Your task to perform on an android device: change your default location settings in chrome Image 0: 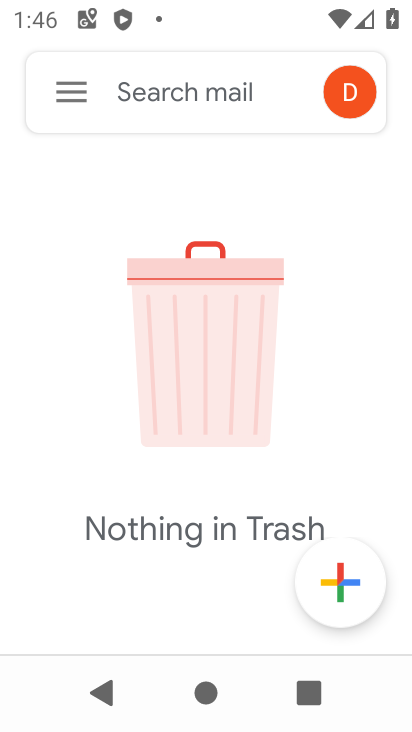
Step 0: press home button
Your task to perform on an android device: change your default location settings in chrome Image 1: 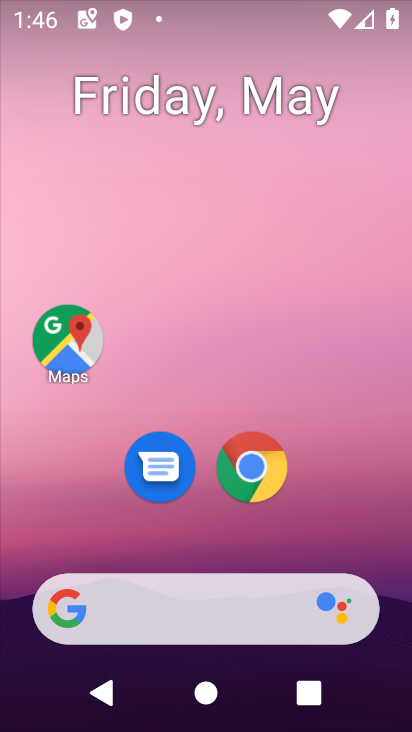
Step 1: drag from (329, 492) to (295, 24)
Your task to perform on an android device: change your default location settings in chrome Image 2: 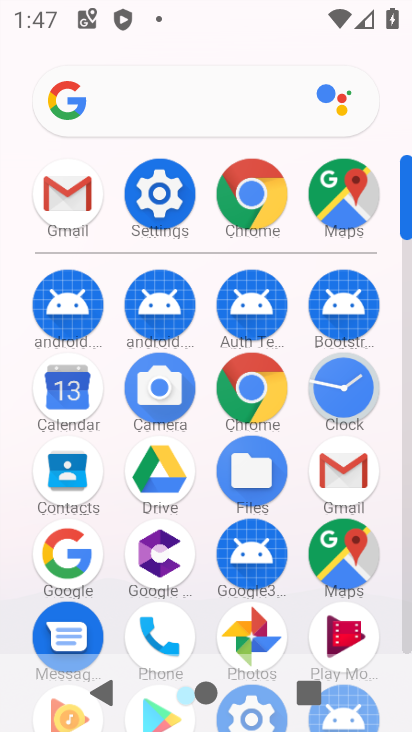
Step 2: click (249, 190)
Your task to perform on an android device: change your default location settings in chrome Image 3: 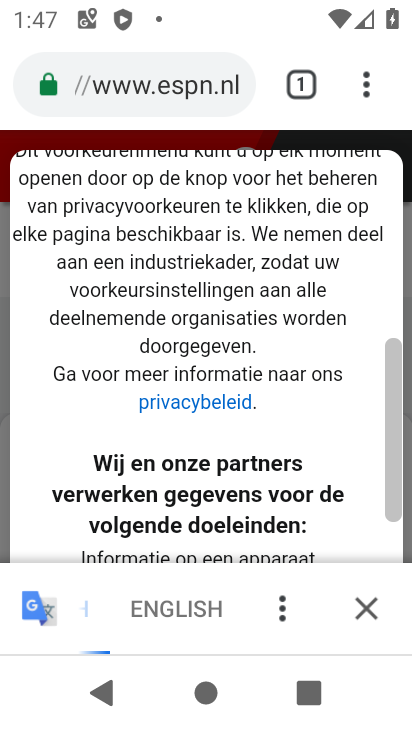
Step 3: drag from (365, 84) to (154, 519)
Your task to perform on an android device: change your default location settings in chrome Image 4: 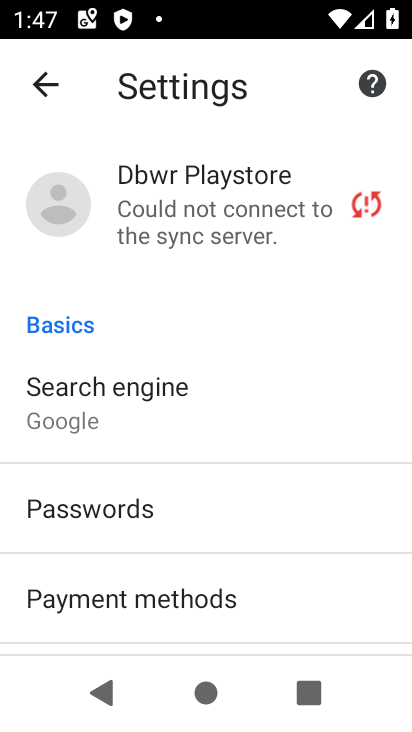
Step 4: drag from (203, 618) to (139, 304)
Your task to perform on an android device: change your default location settings in chrome Image 5: 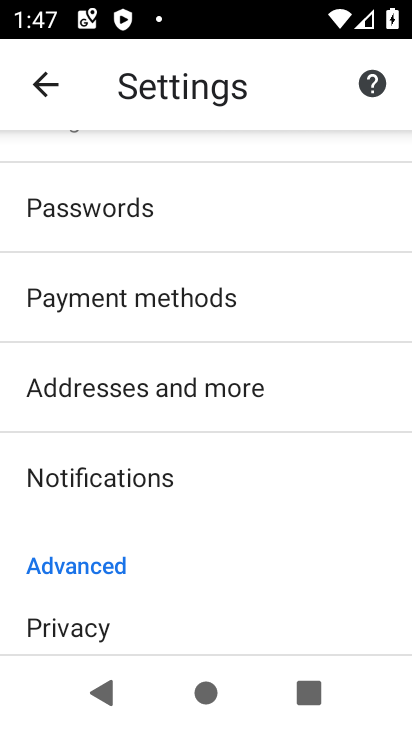
Step 5: drag from (224, 534) to (245, 188)
Your task to perform on an android device: change your default location settings in chrome Image 6: 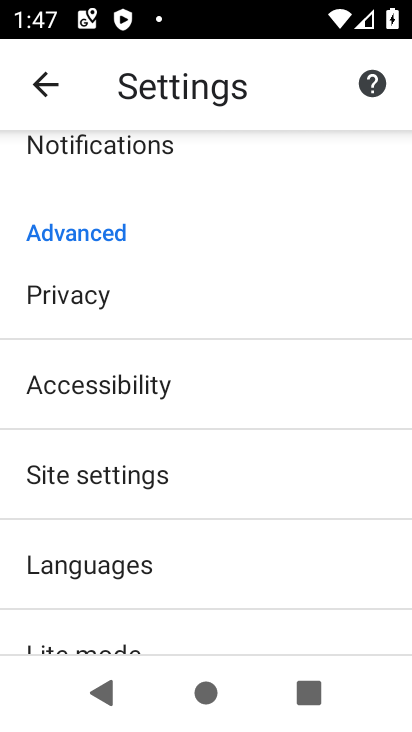
Step 6: drag from (189, 542) to (217, 270)
Your task to perform on an android device: change your default location settings in chrome Image 7: 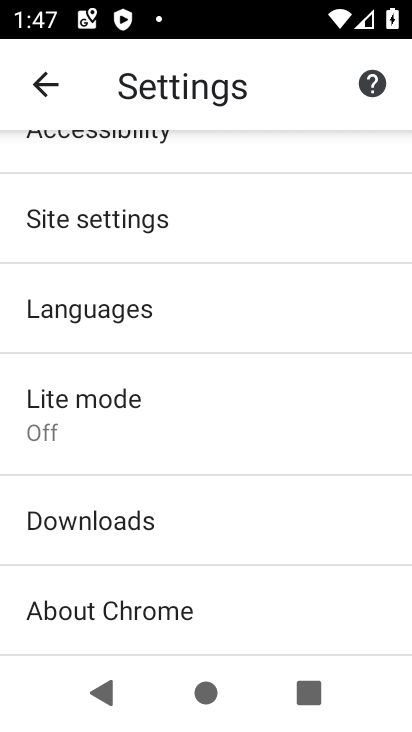
Step 7: drag from (176, 543) to (224, 201)
Your task to perform on an android device: change your default location settings in chrome Image 8: 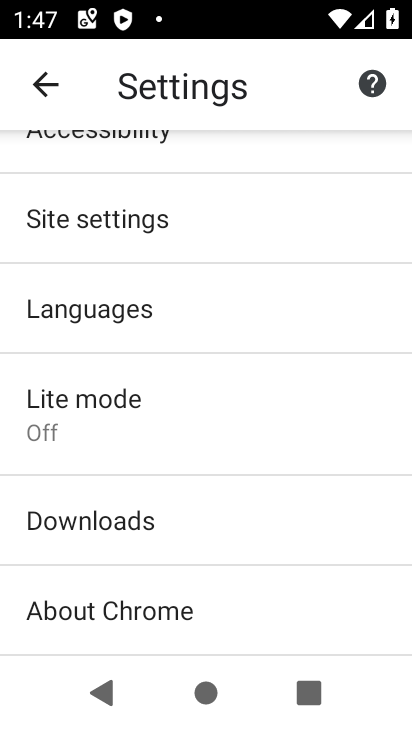
Step 8: drag from (184, 584) to (194, 228)
Your task to perform on an android device: change your default location settings in chrome Image 9: 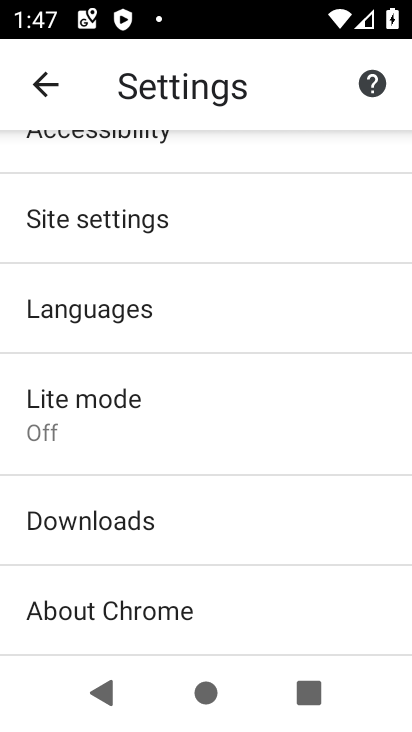
Step 9: drag from (235, 544) to (256, 257)
Your task to perform on an android device: change your default location settings in chrome Image 10: 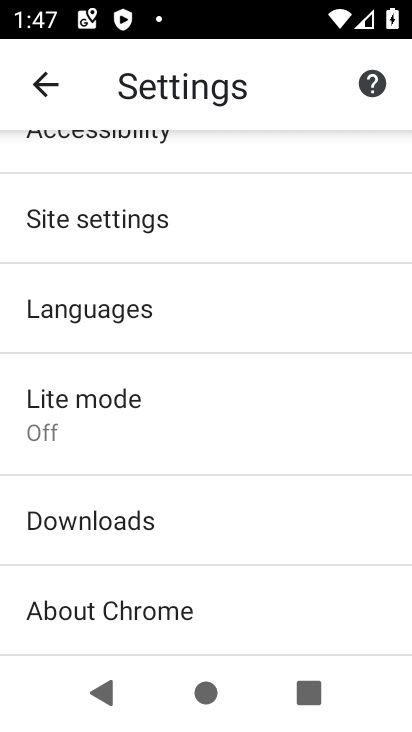
Step 10: drag from (204, 571) to (263, 195)
Your task to perform on an android device: change your default location settings in chrome Image 11: 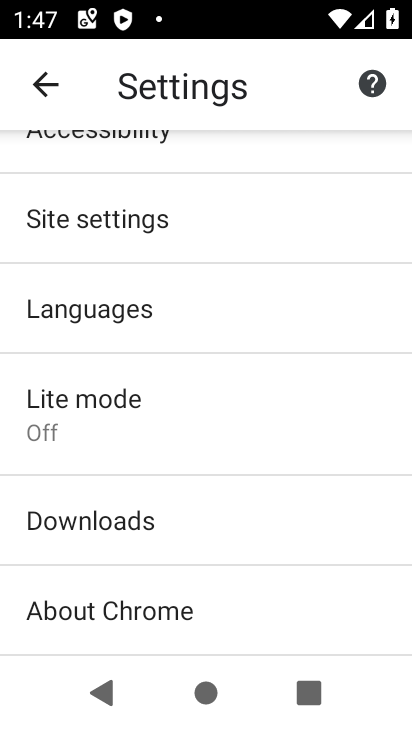
Step 11: drag from (266, 249) to (278, 575)
Your task to perform on an android device: change your default location settings in chrome Image 12: 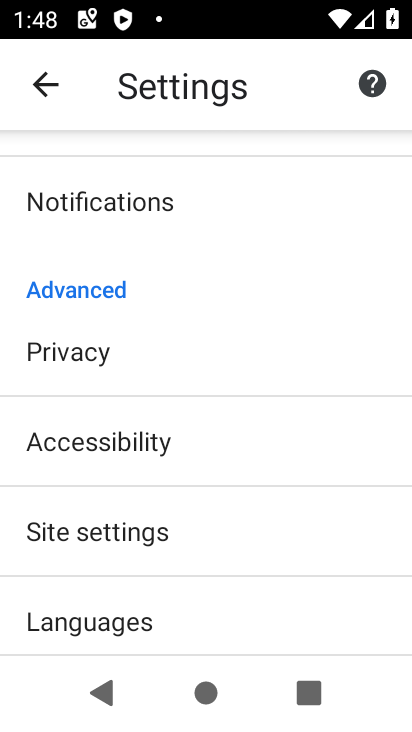
Step 12: drag from (286, 322) to (314, 674)
Your task to perform on an android device: change your default location settings in chrome Image 13: 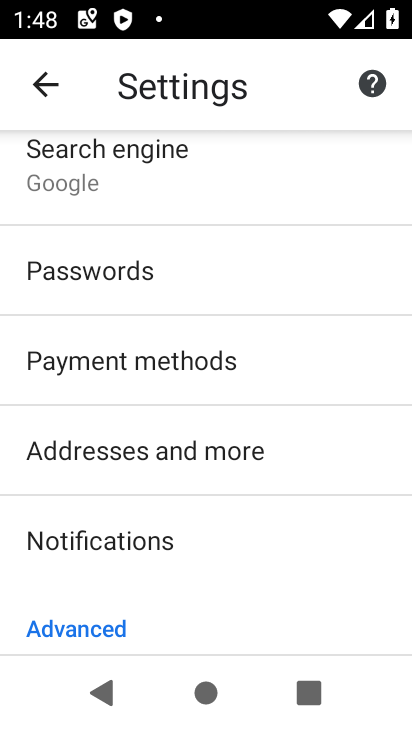
Step 13: drag from (222, 569) to (236, 245)
Your task to perform on an android device: change your default location settings in chrome Image 14: 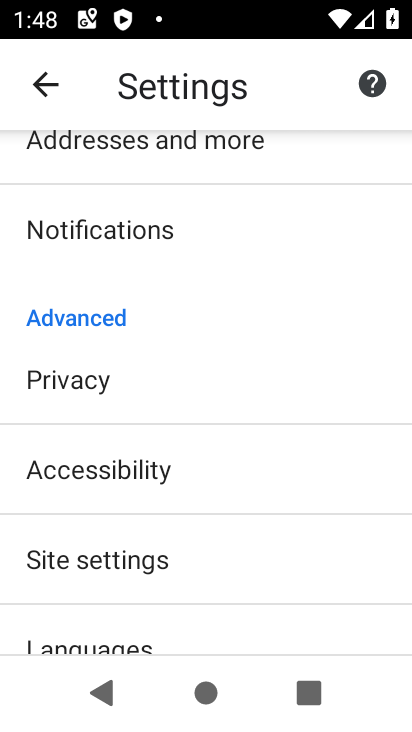
Step 14: click (143, 554)
Your task to perform on an android device: change your default location settings in chrome Image 15: 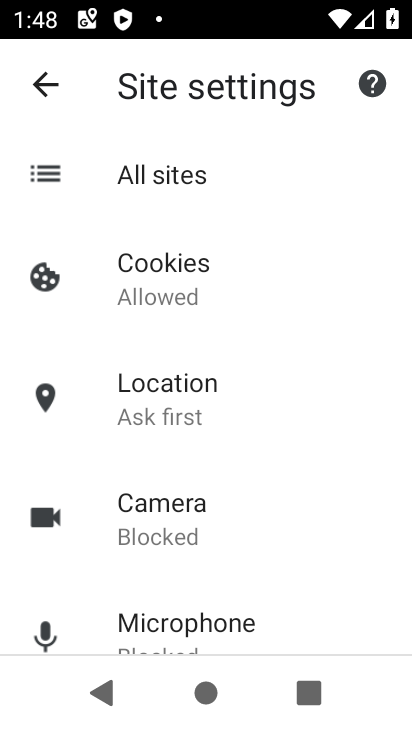
Step 15: click (209, 401)
Your task to perform on an android device: change your default location settings in chrome Image 16: 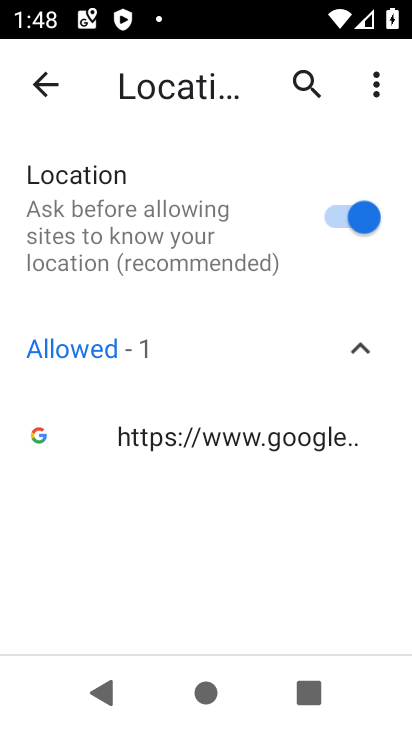
Step 16: click (347, 222)
Your task to perform on an android device: change your default location settings in chrome Image 17: 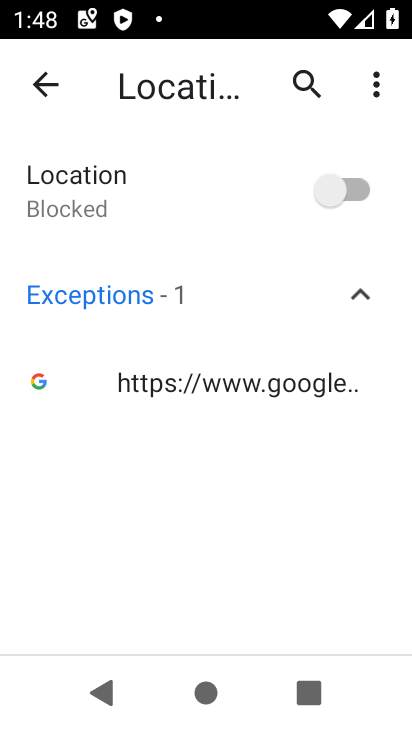
Step 17: task complete